Your task to perform on an android device: Turn off the flashlight Image 0: 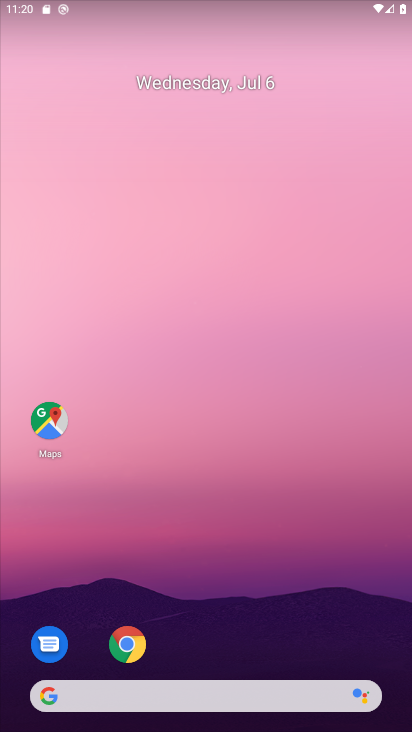
Step 0: drag from (178, 16) to (222, 487)
Your task to perform on an android device: Turn off the flashlight Image 1: 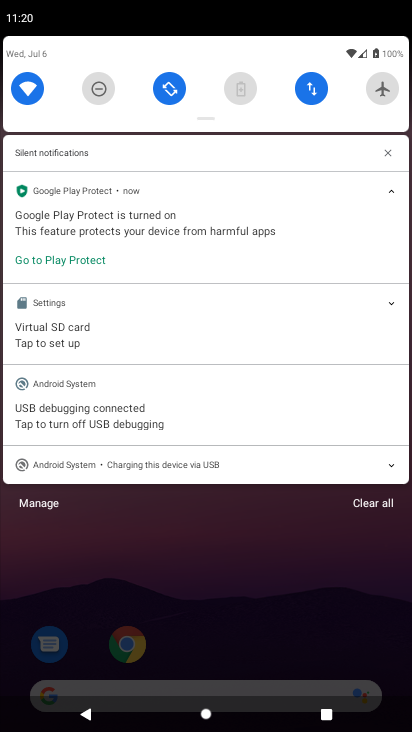
Step 1: task complete